Your task to perform on an android device: turn smart compose on in the gmail app Image 0: 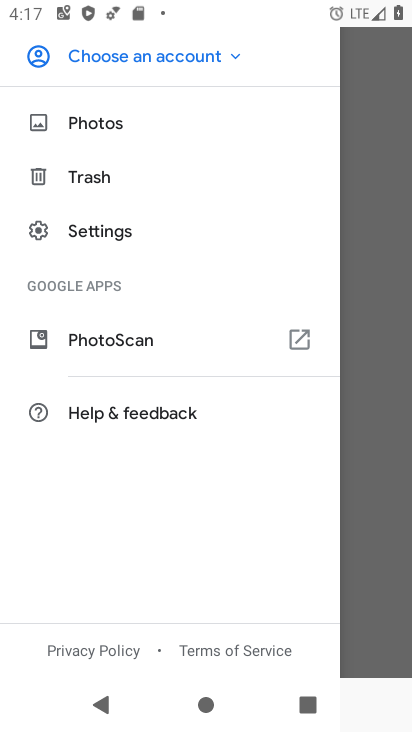
Step 0: press back button
Your task to perform on an android device: turn smart compose on in the gmail app Image 1: 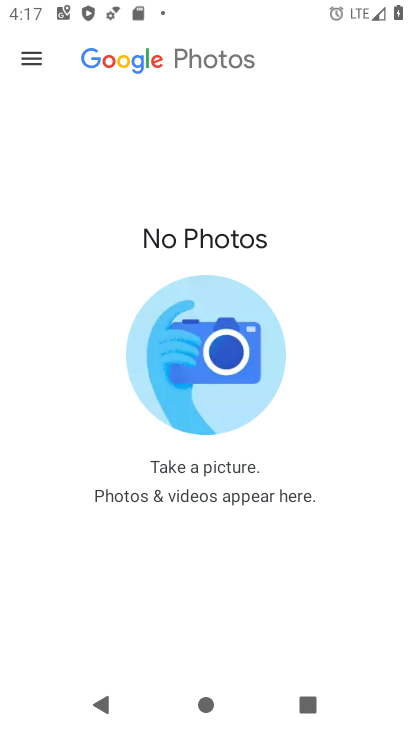
Step 1: press home button
Your task to perform on an android device: turn smart compose on in the gmail app Image 2: 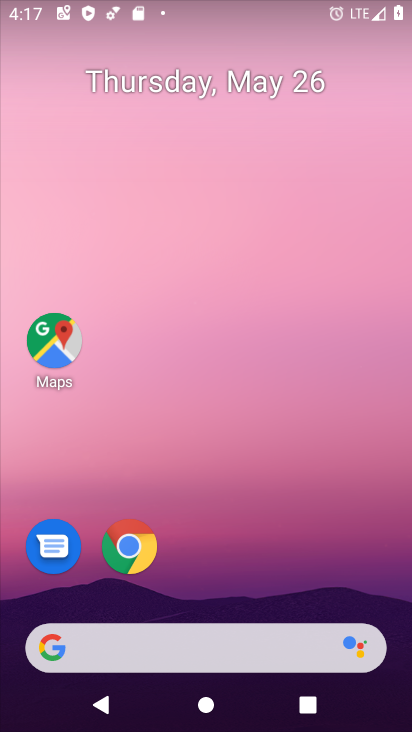
Step 2: drag from (234, 579) to (322, 68)
Your task to perform on an android device: turn smart compose on in the gmail app Image 3: 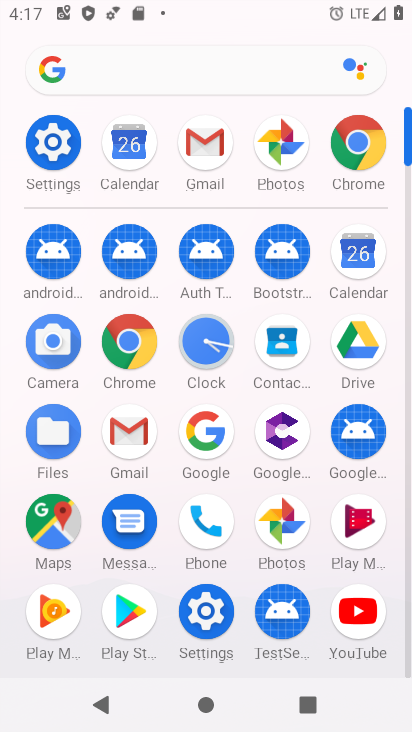
Step 3: click (206, 136)
Your task to perform on an android device: turn smart compose on in the gmail app Image 4: 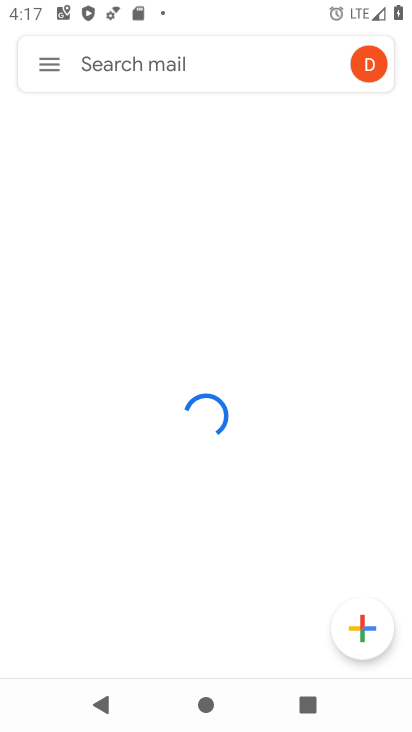
Step 4: click (44, 62)
Your task to perform on an android device: turn smart compose on in the gmail app Image 5: 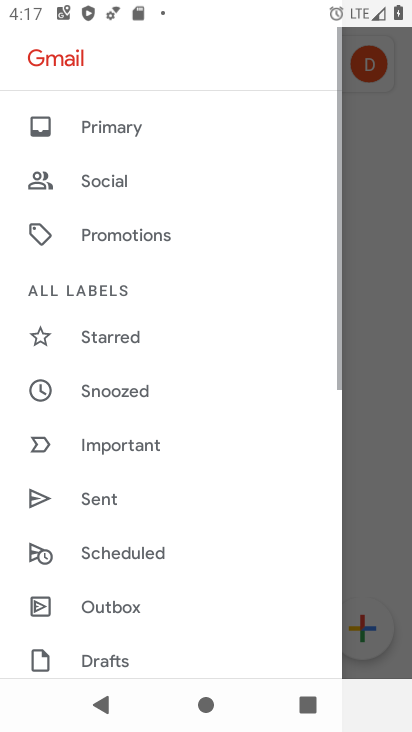
Step 5: drag from (132, 549) to (195, 106)
Your task to perform on an android device: turn smart compose on in the gmail app Image 6: 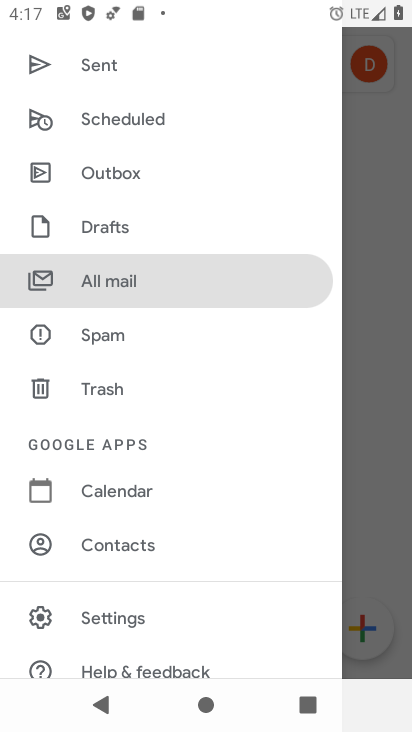
Step 6: click (119, 614)
Your task to perform on an android device: turn smart compose on in the gmail app Image 7: 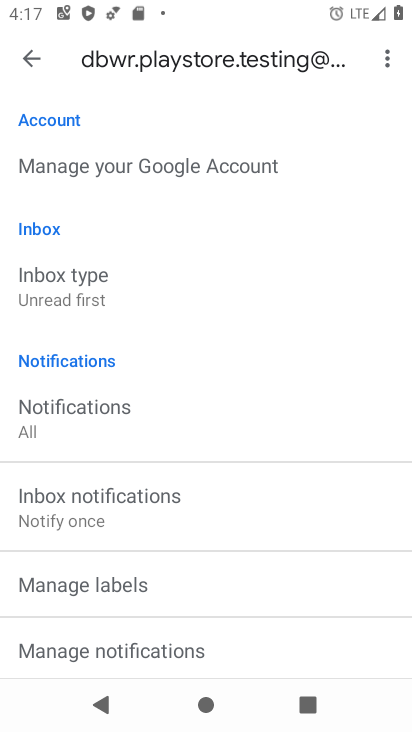
Step 7: task complete